Your task to perform on an android device: turn off javascript in the chrome app Image 0: 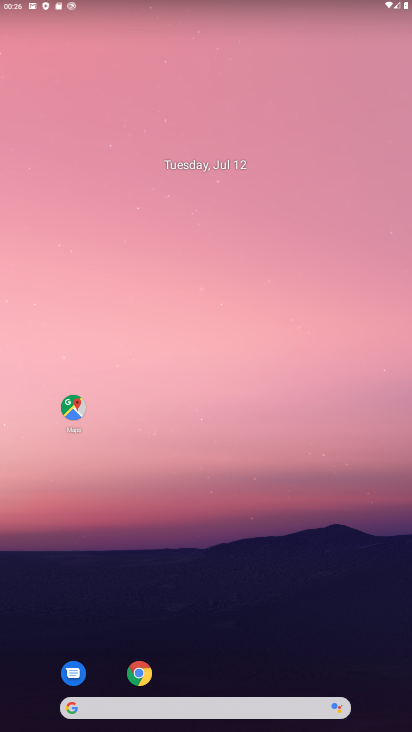
Step 0: press home button
Your task to perform on an android device: turn off javascript in the chrome app Image 1: 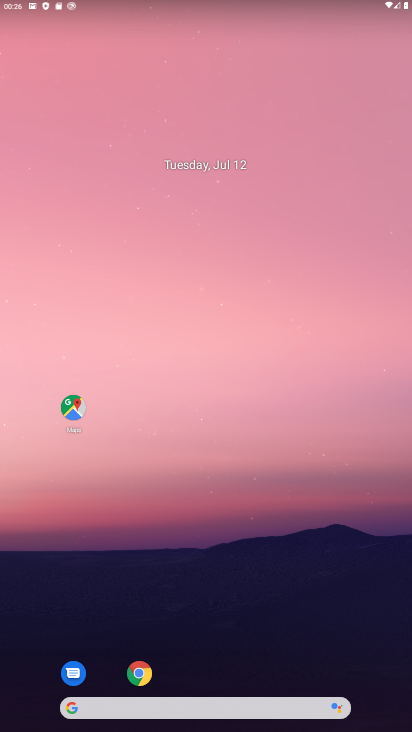
Step 1: click (132, 665)
Your task to perform on an android device: turn off javascript in the chrome app Image 2: 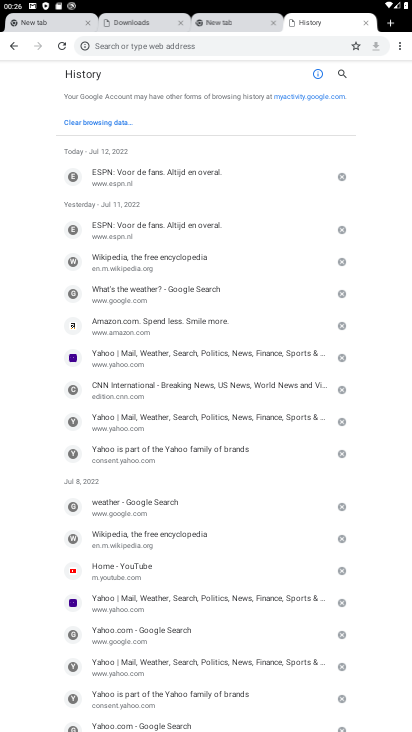
Step 2: drag from (391, 47) to (303, 217)
Your task to perform on an android device: turn off javascript in the chrome app Image 3: 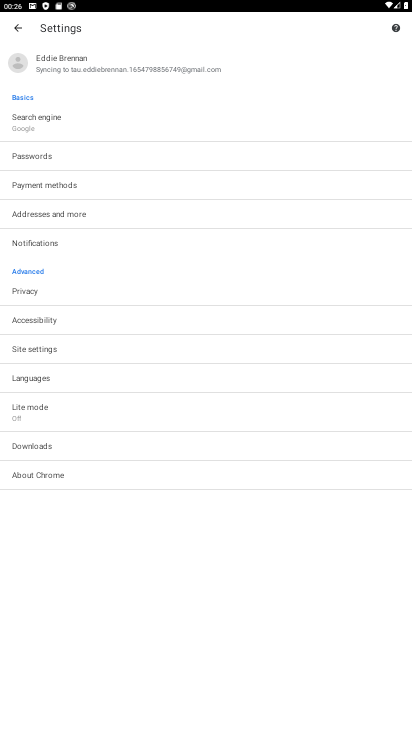
Step 3: click (50, 344)
Your task to perform on an android device: turn off javascript in the chrome app Image 4: 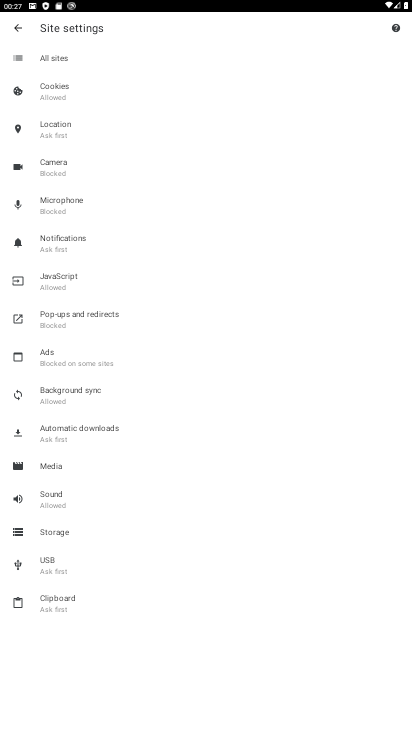
Step 4: click (58, 285)
Your task to perform on an android device: turn off javascript in the chrome app Image 5: 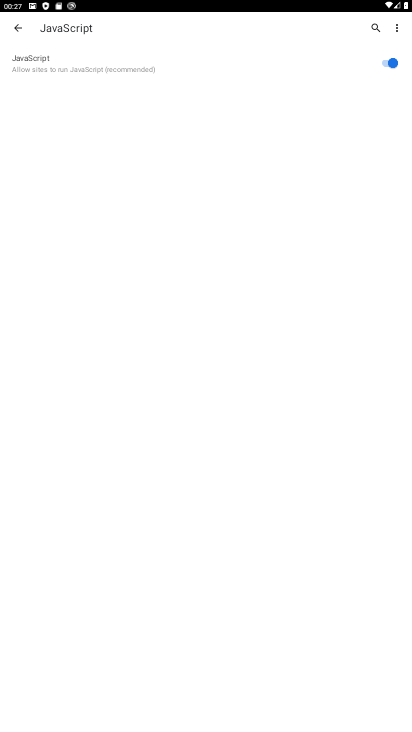
Step 5: click (389, 56)
Your task to perform on an android device: turn off javascript in the chrome app Image 6: 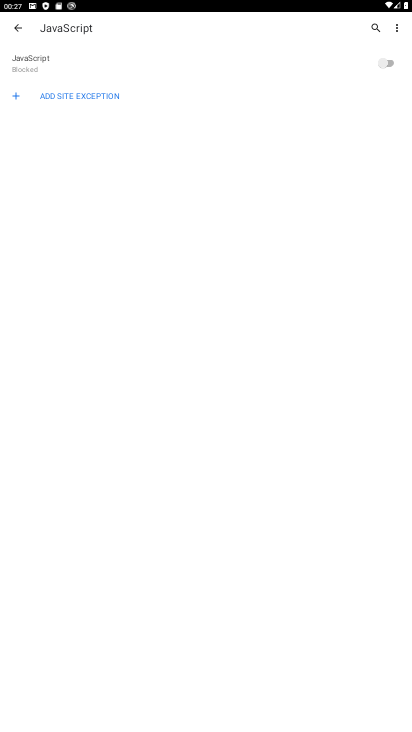
Step 6: task complete